Your task to perform on an android device: Search for sushi restaurants on Maps Image 0: 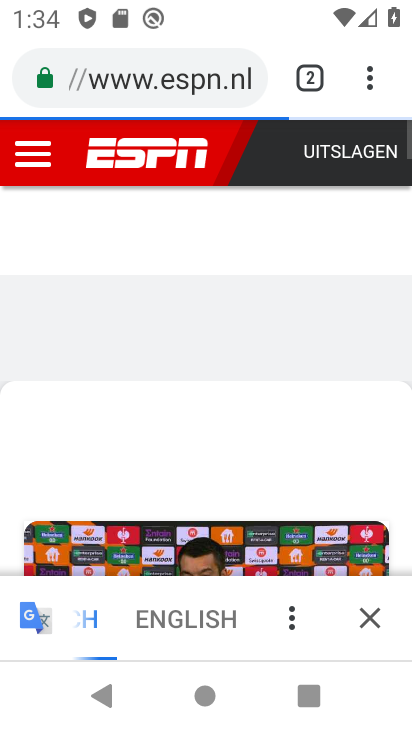
Step 0: press home button
Your task to perform on an android device: Search for sushi restaurants on Maps Image 1: 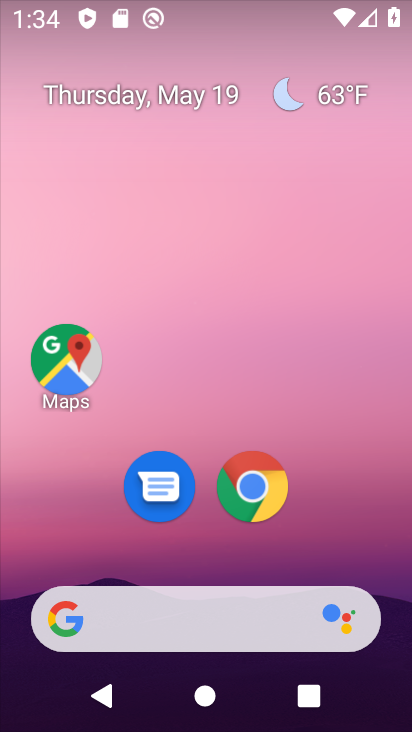
Step 1: click (70, 363)
Your task to perform on an android device: Search for sushi restaurants on Maps Image 2: 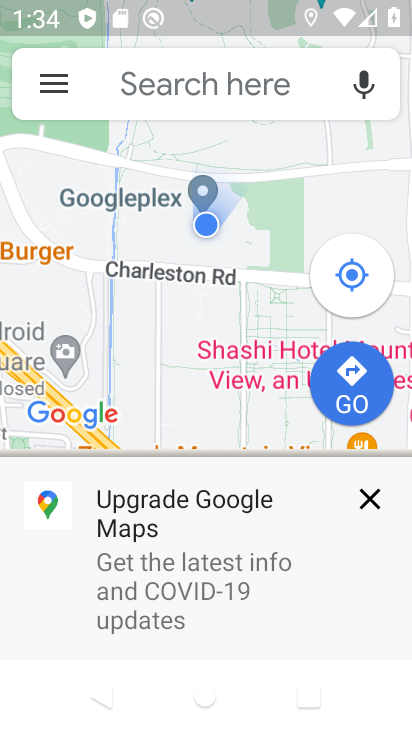
Step 2: click (244, 83)
Your task to perform on an android device: Search for sushi restaurants on Maps Image 3: 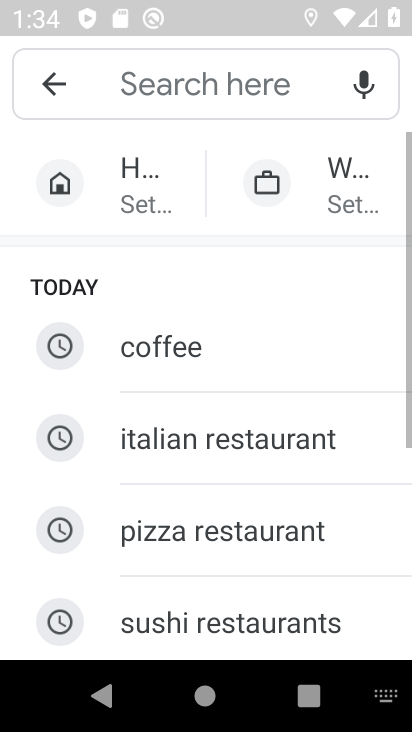
Step 3: click (208, 617)
Your task to perform on an android device: Search for sushi restaurants on Maps Image 4: 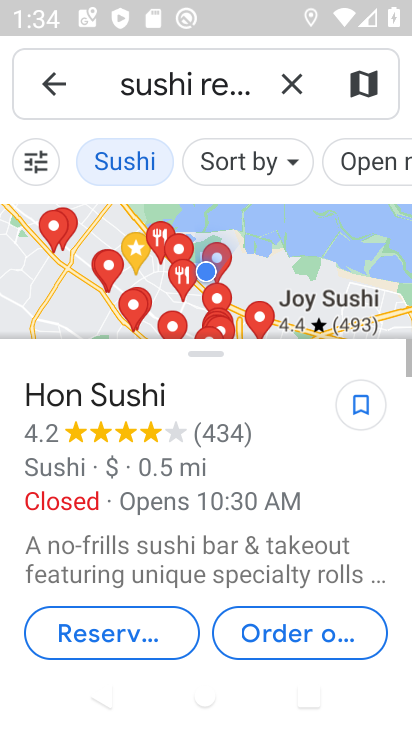
Step 4: task complete